Your task to perform on an android device: Go to ESPN.com Image 0: 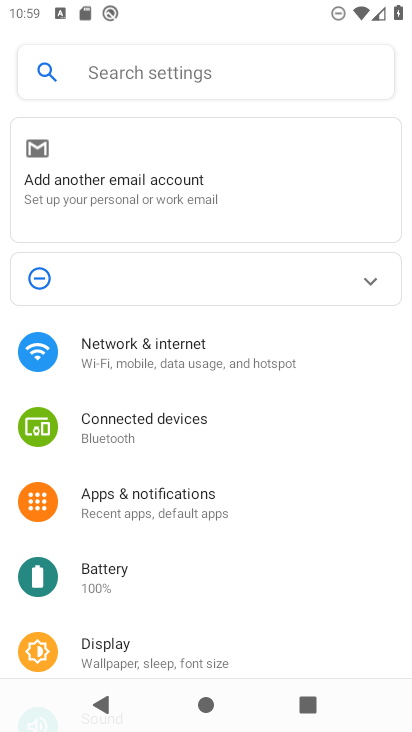
Step 0: press home button
Your task to perform on an android device: Go to ESPN.com Image 1: 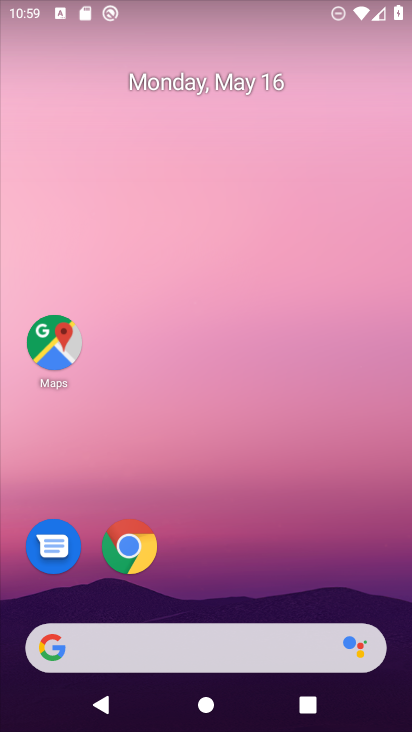
Step 1: click (171, 635)
Your task to perform on an android device: Go to ESPN.com Image 2: 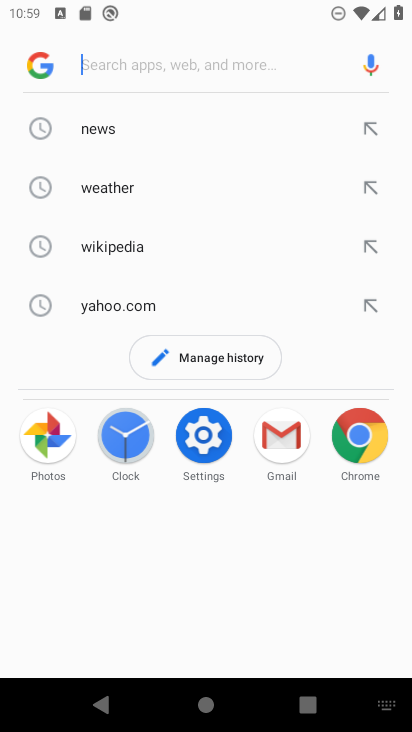
Step 2: type "espn.com"
Your task to perform on an android device: Go to ESPN.com Image 3: 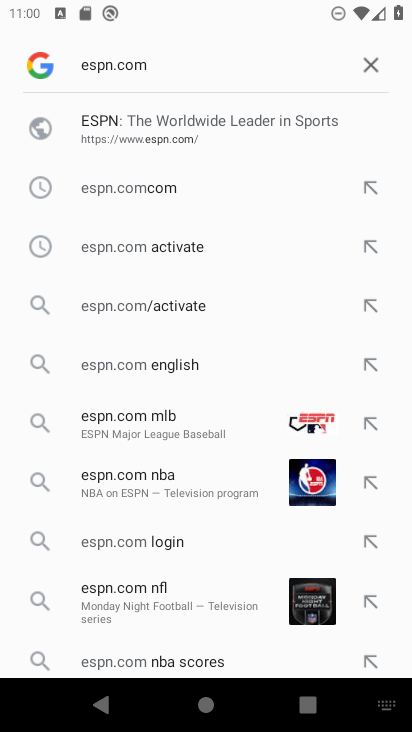
Step 3: click (244, 147)
Your task to perform on an android device: Go to ESPN.com Image 4: 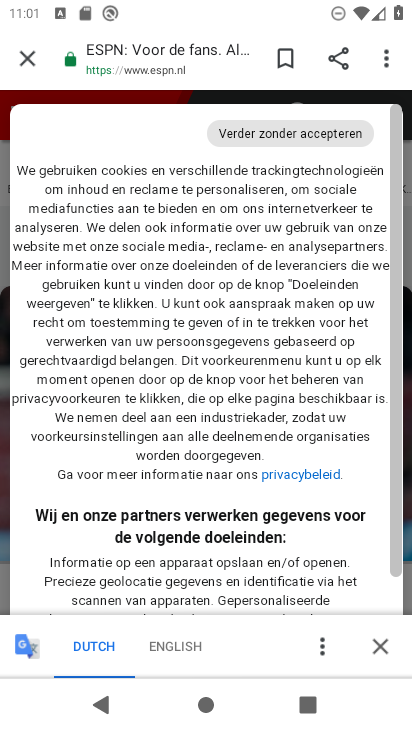
Step 4: task complete